Your task to perform on an android device: Set the phone to "Do not disturb". Image 0: 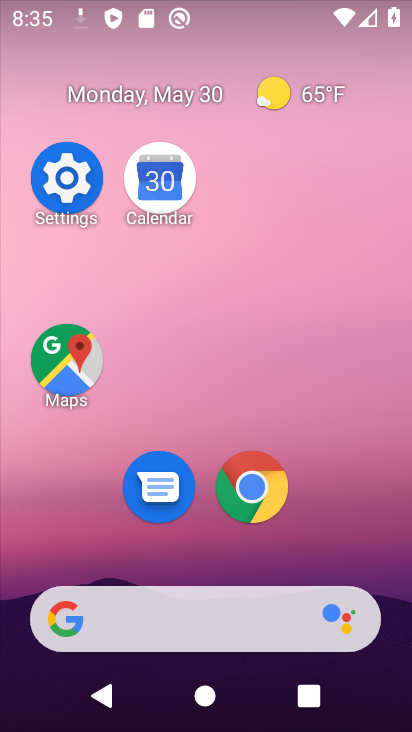
Step 0: click (85, 181)
Your task to perform on an android device: Set the phone to "Do not disturb". Image 1: 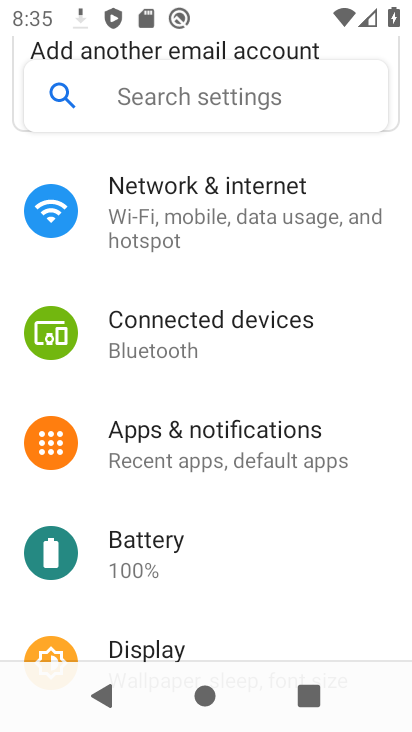
Step 1: drag from (323, 565) to (304, 290)
Your task to perform on an android device: Set the phone to "Do not disturb". Image 2: 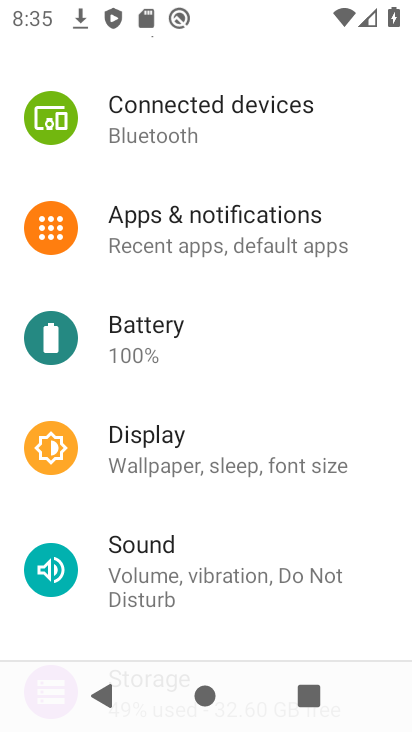
Step 2: drag from (314, 322) to (287, 552)
Your task to perform on an android device: Set the phone to "Do not disturb". Image 3: 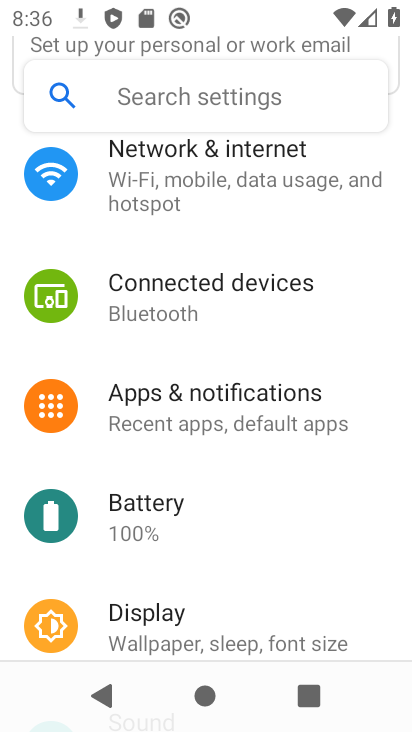
Step 3: drag from (287, 548) to (277, 285)
Your task to perform on an android device: Set the phone to "Do not disturb". Image 4: 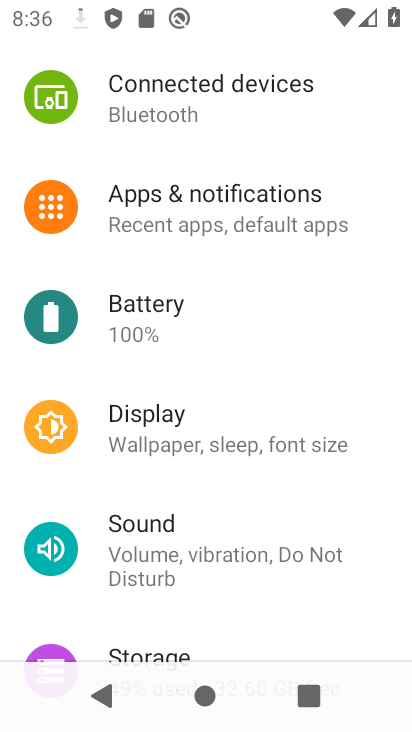
Step 4: click (254, 556)
Your task to perform on an android device: Set the phone to "Do not disturb". Image 5: 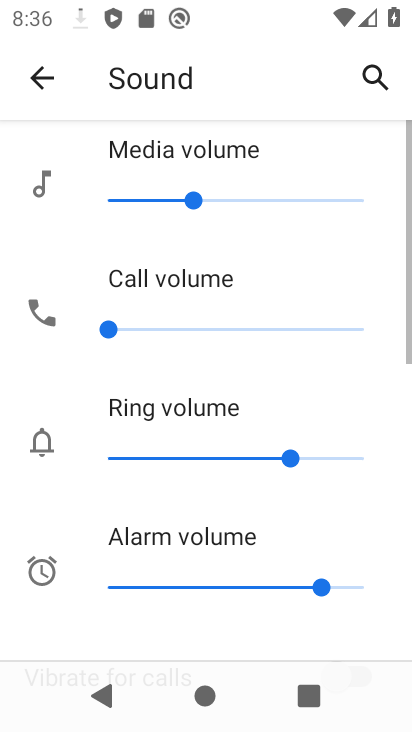
Step 5: drag from (235, 424) to (194, 232)
Your task to perform on an android device: Set the phone to "Do not disturb". Image 6: 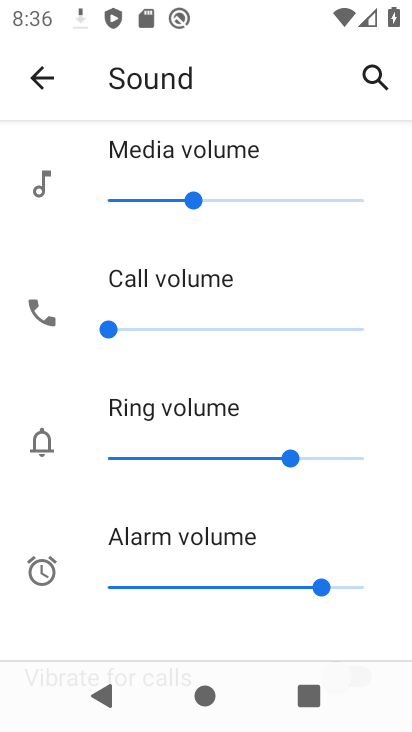
Step 6: drag from (228, 549) to (238, 187)
Your task to perform on an android device: Set the phone to "Do not disturb". Image 7: 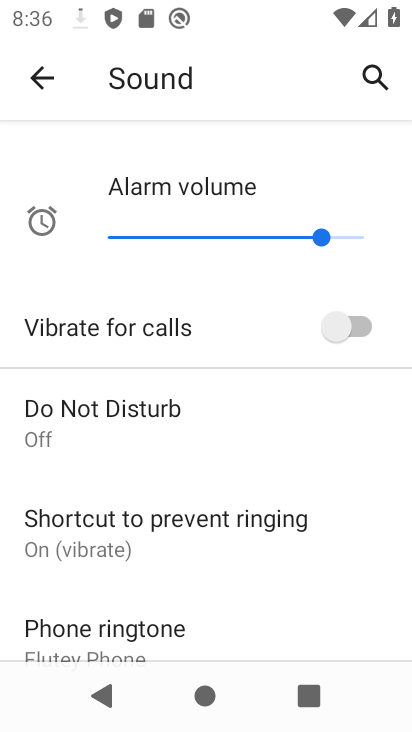
Step 7: click (236, 412)
Your task to perform on an android device: Set the phone to "Do not disturb". Image 8: 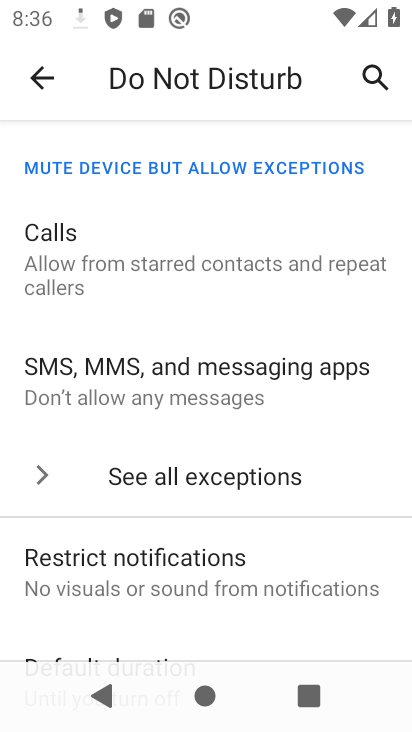
Step 8: drag from (290, 533) to (313, 147)
Your task to perform on an android device: Set the phone to "Do not disturb". Image 9: 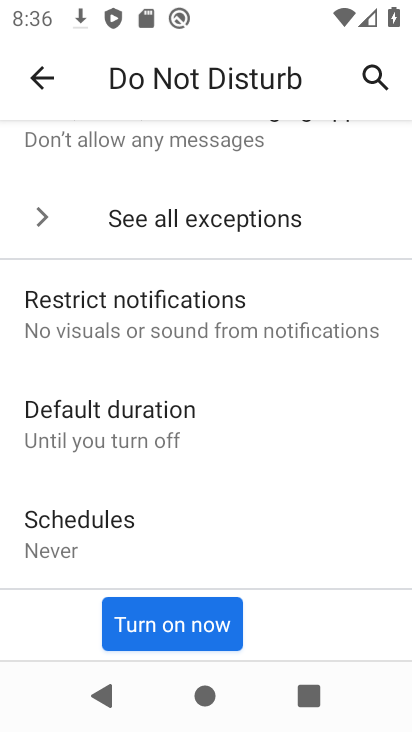
Step 9: click (205, 630)
Your task to perform on an android device: Set the phone to "Do not disturb". Image 10: 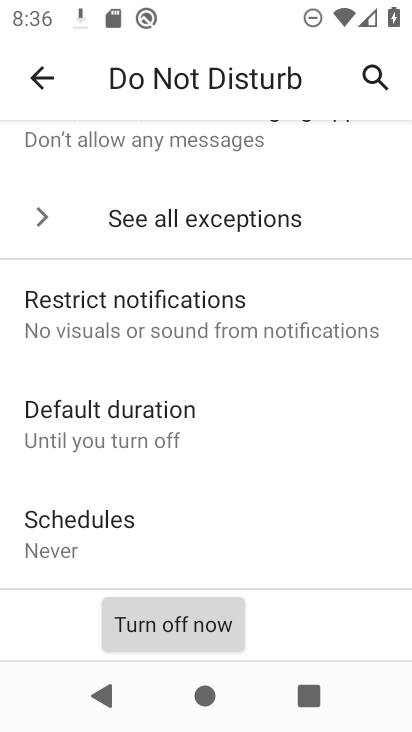
Step 10: task complete